Your task to perform on an android device: visit the assistant section in the google photos Image 0: 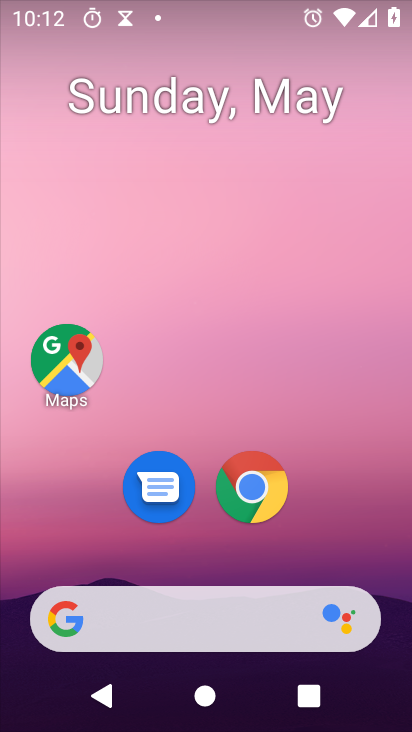
Step 0: drag from (301, 334) to (242, 157)
Your task to perform on an android device: visit the assistant section in the google photos Image 1: 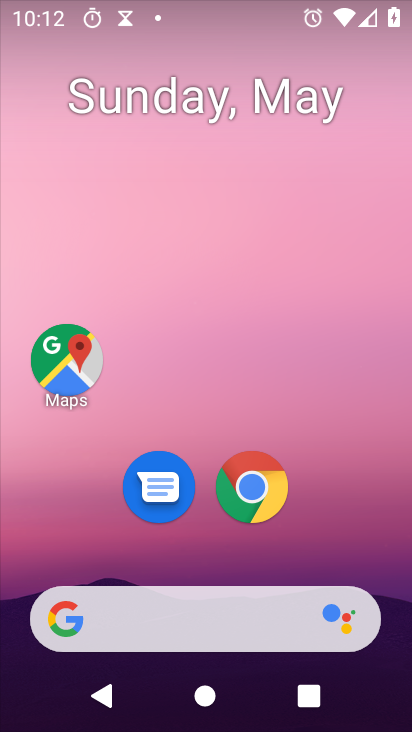
Step 1: drag from (319, 448) to (257, 207)
Your task to perform on an android device: visit the assistant section in the google photos Image 2: 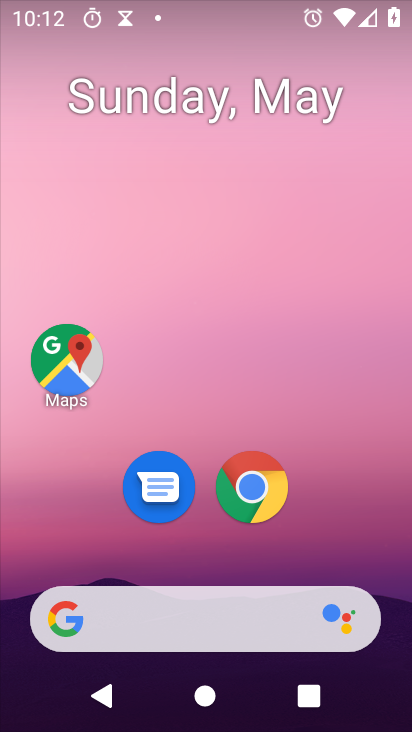
Step 2: drag from (375, 539) to (300, 69)
Your task to perform on an android device: visit the assistant section in the google photos Image 3: 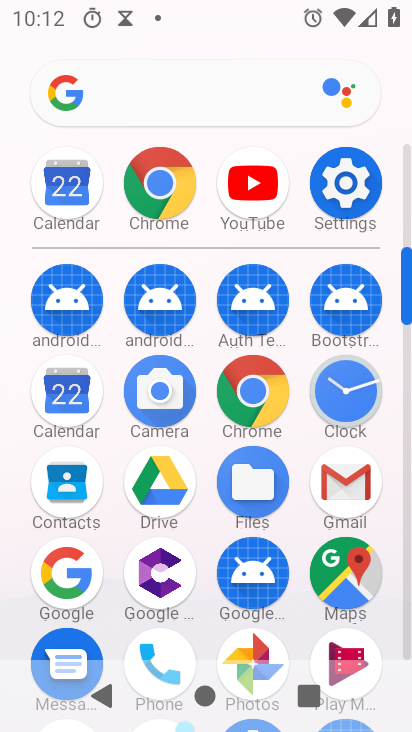
Step 3: drag from (392, 523) to (371, 175)
Your task to perform on an android device: visit the assistant section in the google photos Image 4: 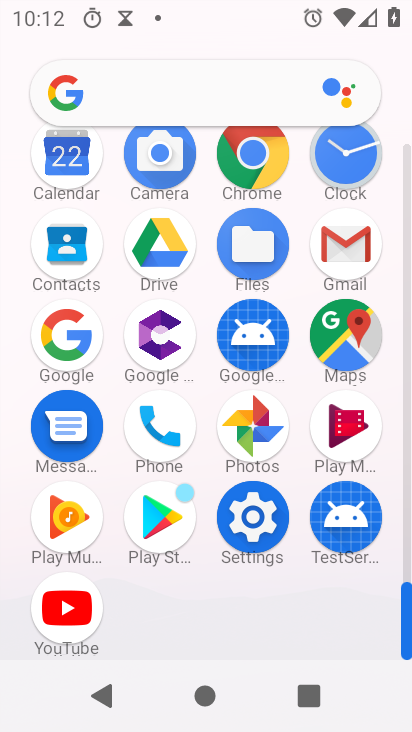
Step 4: click (270, 431)
Your task to perform on an android device: visit the assistant section in the google photos Image 5: 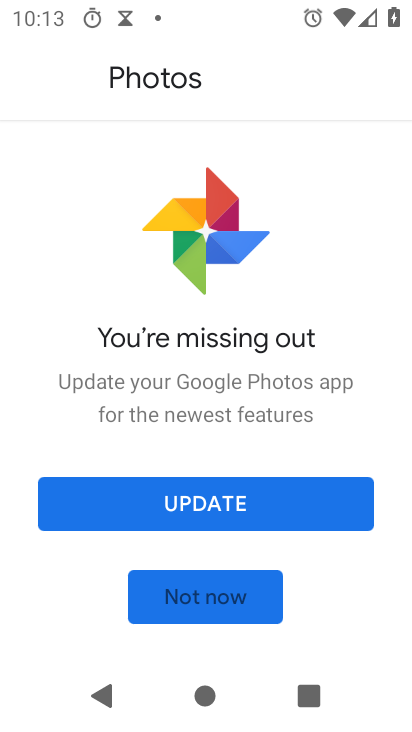
Step 5: click (222, 519)
Your task to perform on an android device: visit the assistant section in the google photos Image 6: 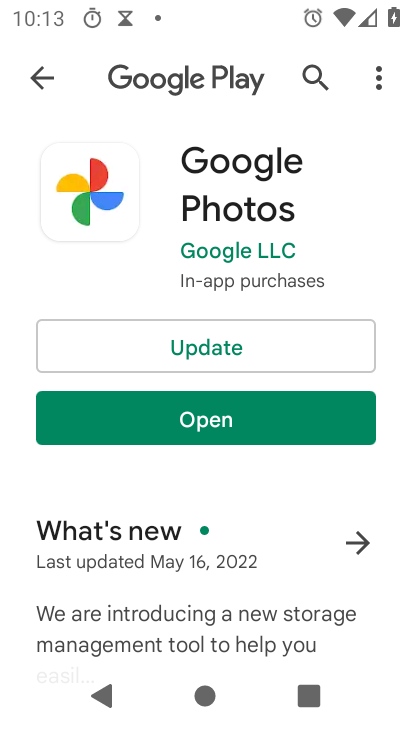
Step 6: click (224, 370)
Your task to perform on an android device: visit the assistant section in the google photos Image 7: 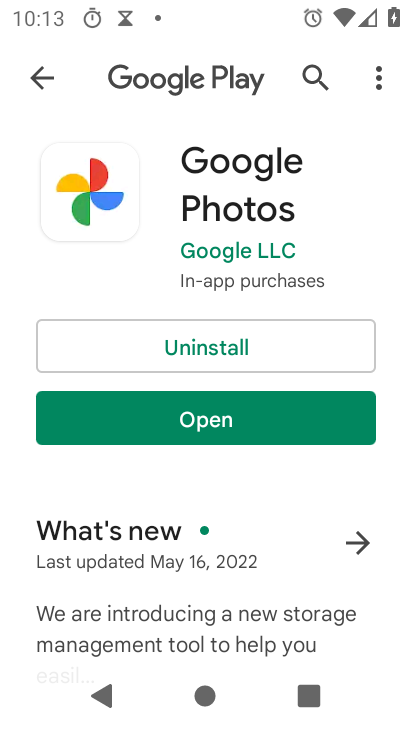
Step 7: click (243, 418)
Your task to perform on an android device: visit the assistant section in the google photos Image 8: 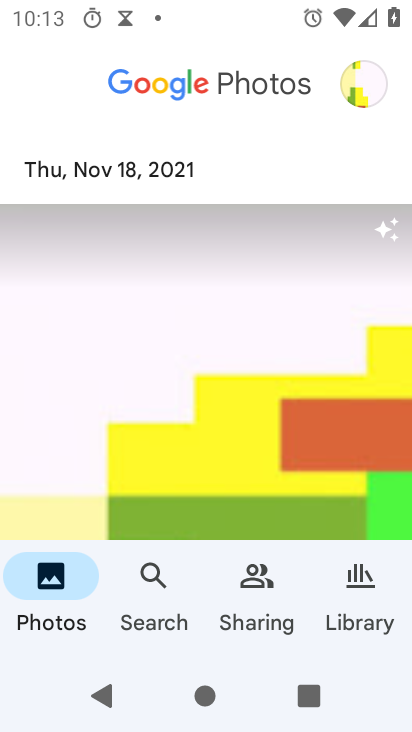
Step 8: task complete